Your task to perform on an android device: Show me popular games on the Play Store Image 0: 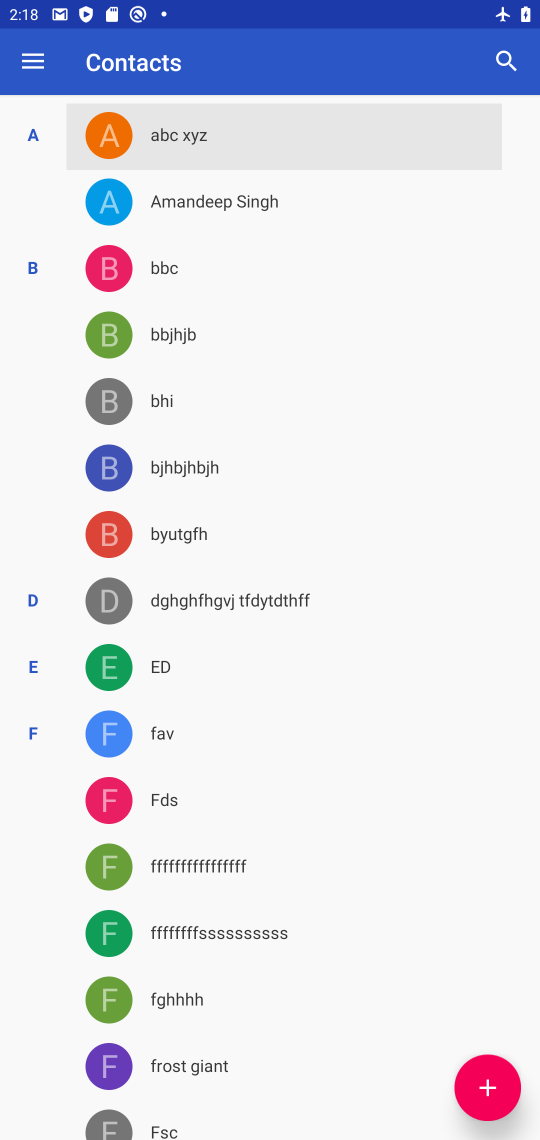
Step 0: press home button
Your task to perform on an android device: Show me popular games on the Play Store Image 1: 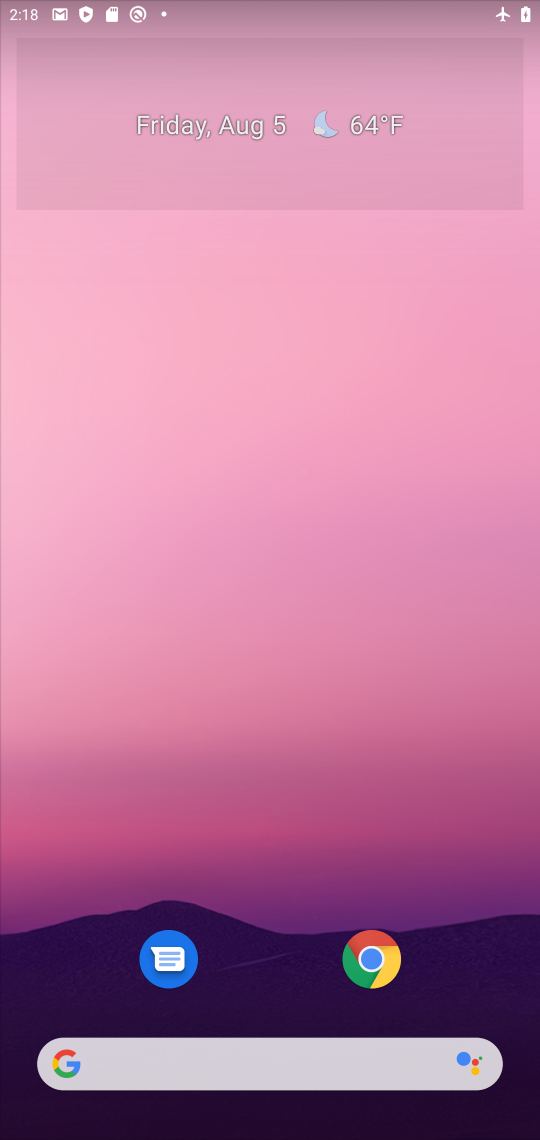
Step 1: drag from (166, 1119) to (342, 229)
Your task to perform on an android device: Show me popular games on the Play Store Image 2: 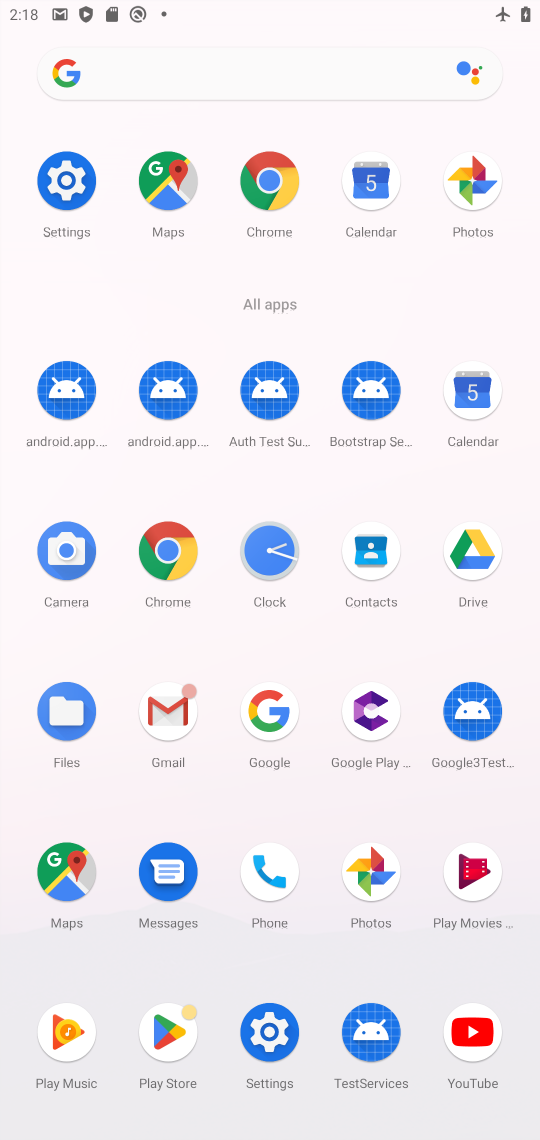
Step 2: click (173, 1018)
Your task to perform on an android device: Show me popular games on the Play Store Image 3: 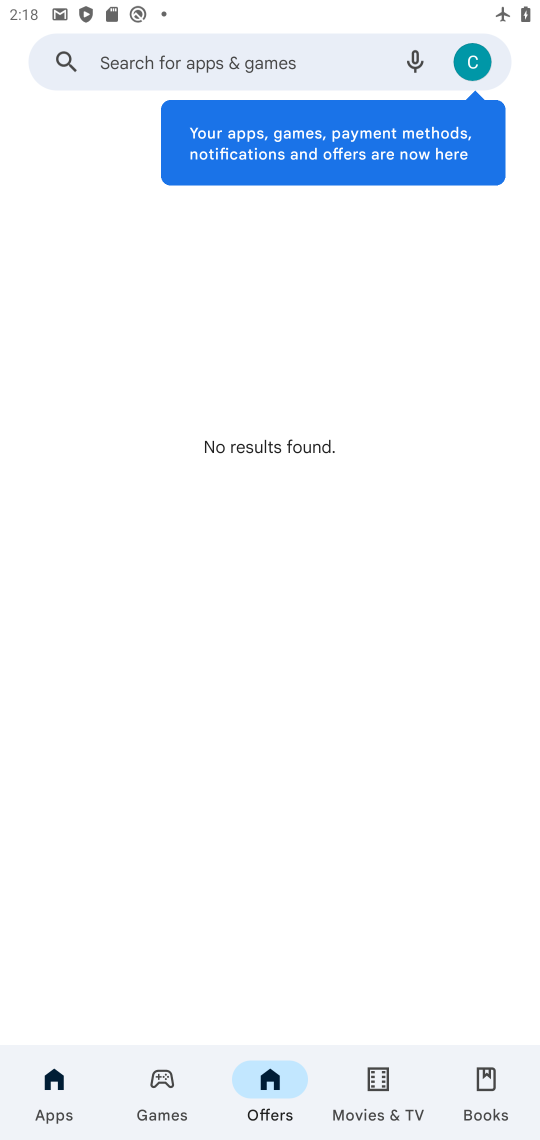
Step 3: click (138, 1089)
Your task to perform on an android device: Show me popular games on the Play Store Image 4: 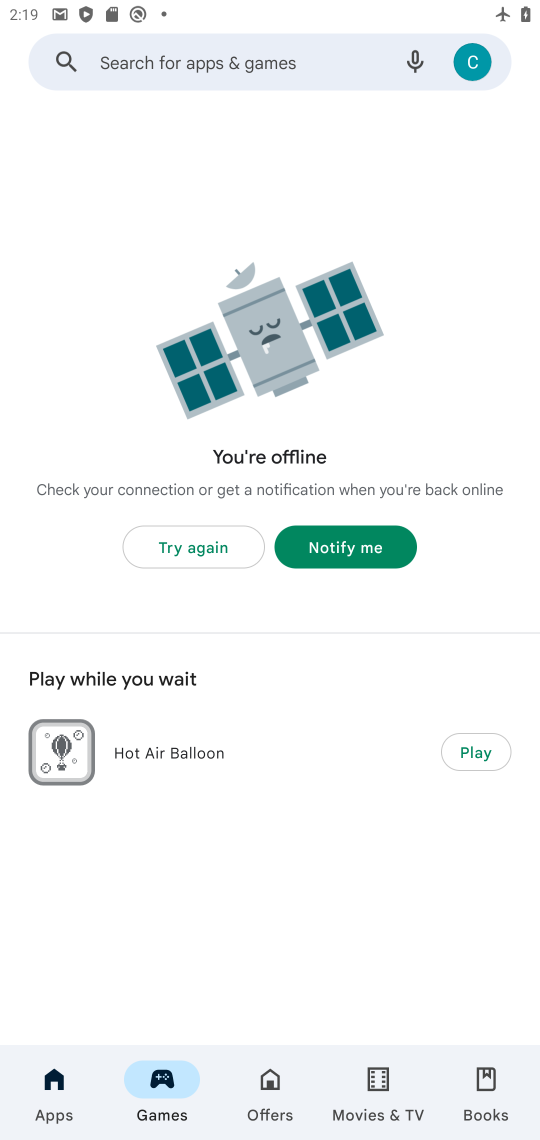
Step 4: task complete